Your task to perform on an android device: set the timer Image 0: 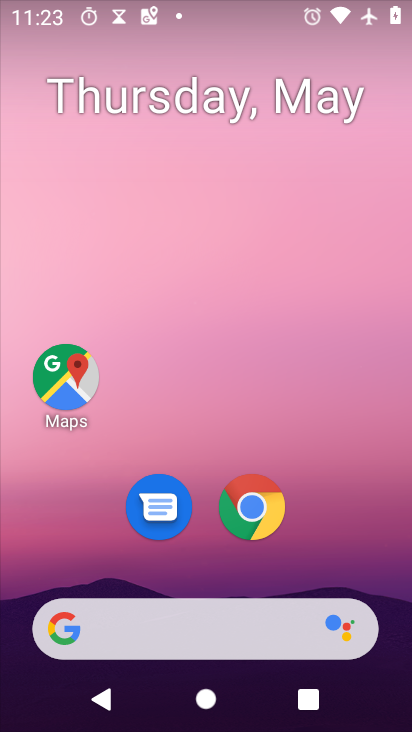
Step 0: drag from (349, 483) to (258, 17)
Your task to perform on an android device: set the timer Image 1: 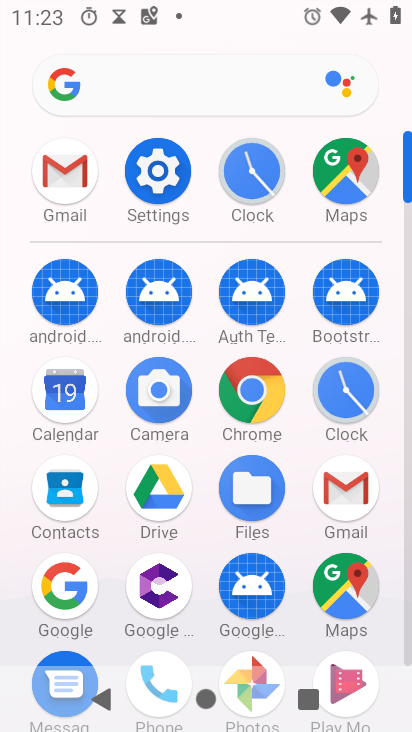
Step 1: drag from (11, 609) to (2, 259)
Your task to perform on an android device: set the timer Image 2: 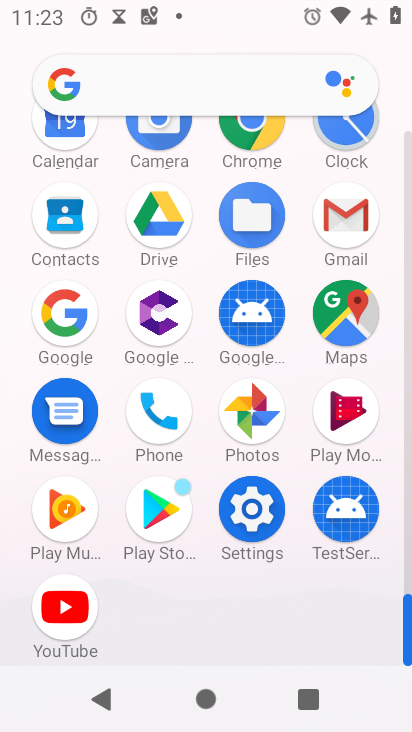
Step 2: drag from (19, 208) to (2, 300)
Your task to perform on an android device: set the timer Image 3: 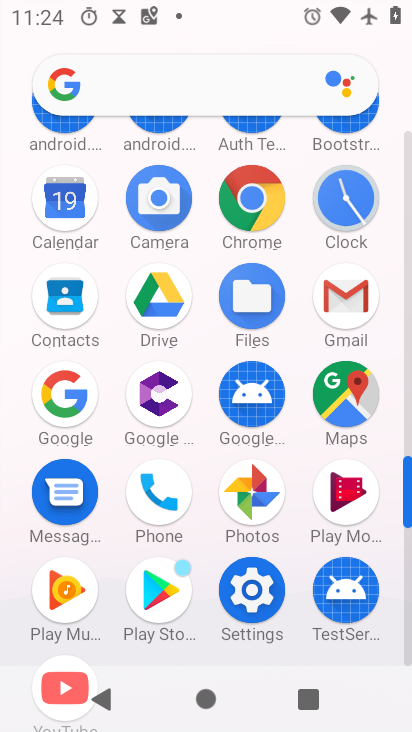
Step 3: click (338, 194)
Your task to perform on an android device: set the timer Image 4: 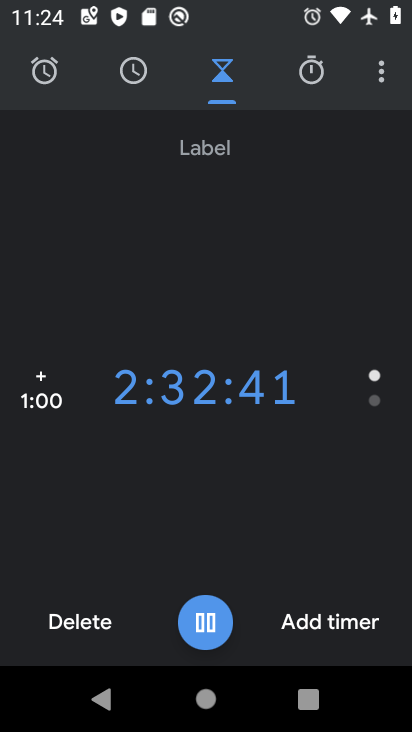
Step 4: click (324, 628)
Your task to perform on an android device: set the timer Image 5: 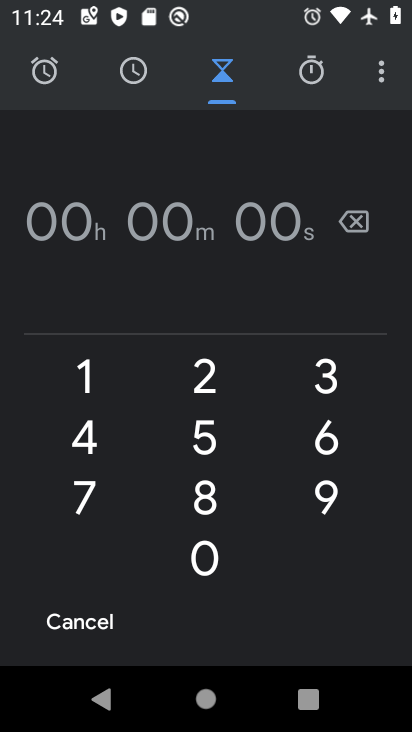
Step 5: click (206, 480)
Your task to perform on an android device: set the timer Image 6: 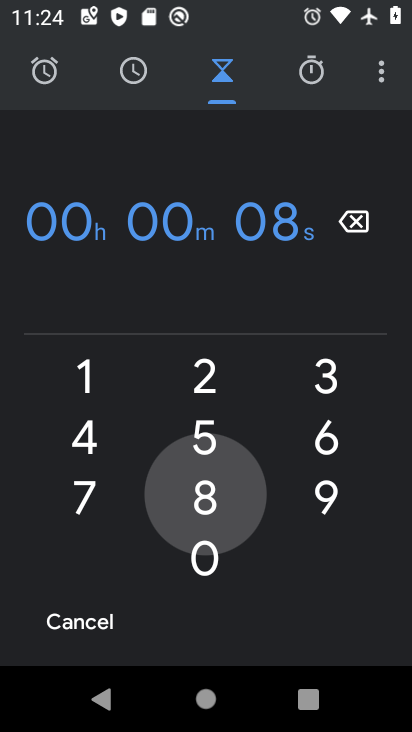
Step 6: click (206, 422)
Your task to perform on an android device: set the timer Image 7: 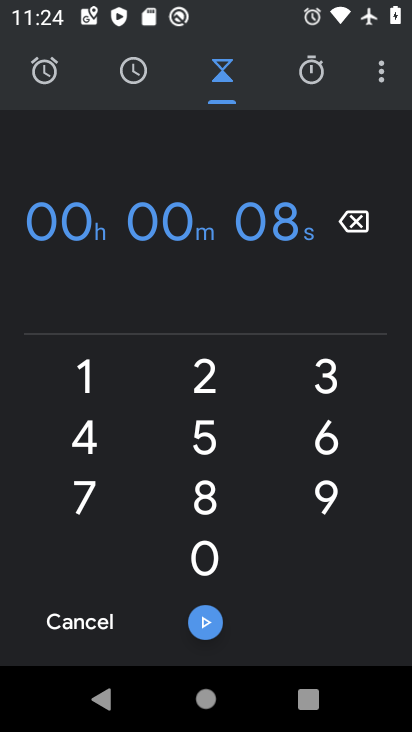
Step 7: click (201, 360)
Your task to perform on an android device: set the timer Image 8: 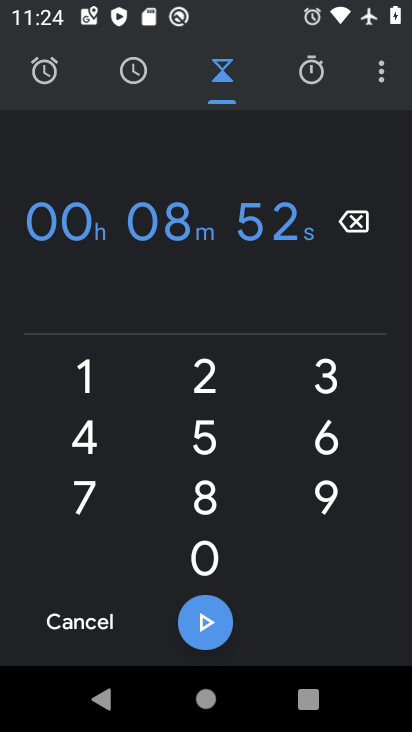
Step 8: click (191, 629)
Your task to perform on an android device: set the timer Image 9: 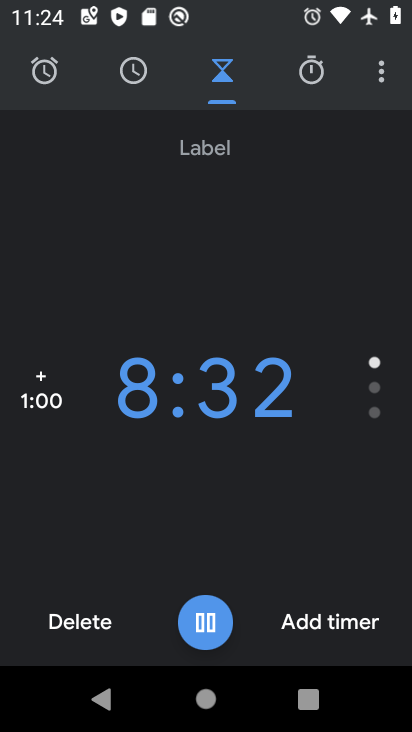
Step 9: task complete